Your task to perform on an android device: open chrome privacy settings Image 0: 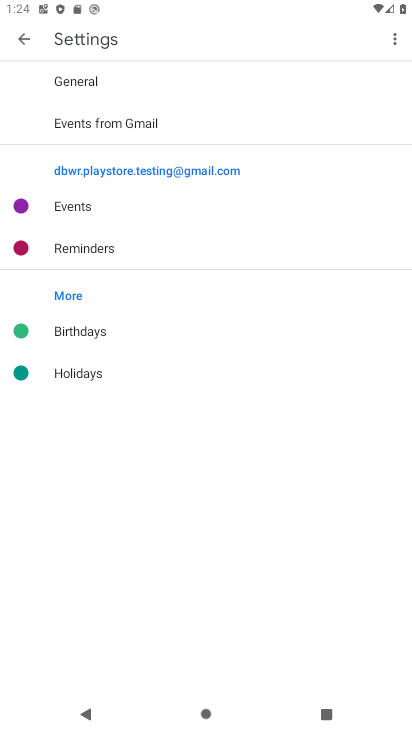
Step 0: press home button
Your task to perform on an android device: open chrome privacy settings Image 1: 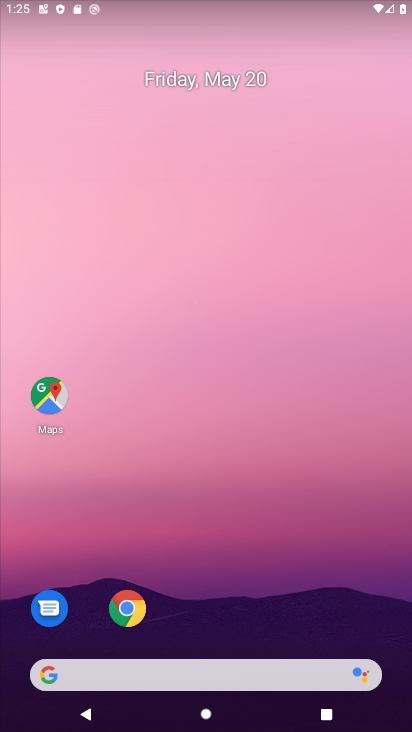
Step 1: click (136, 618)
Your task to perform on an android device: open chrome privacy settings Image 2: 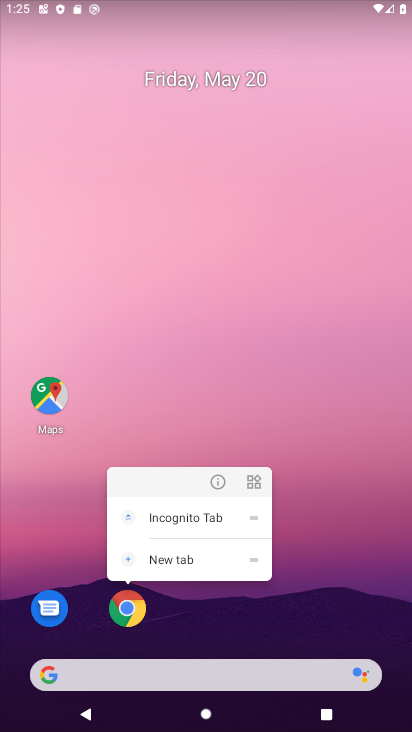
Step 2: click (132, 599)
Your task to perform on an android device: open chrome privacy settings Image 3: 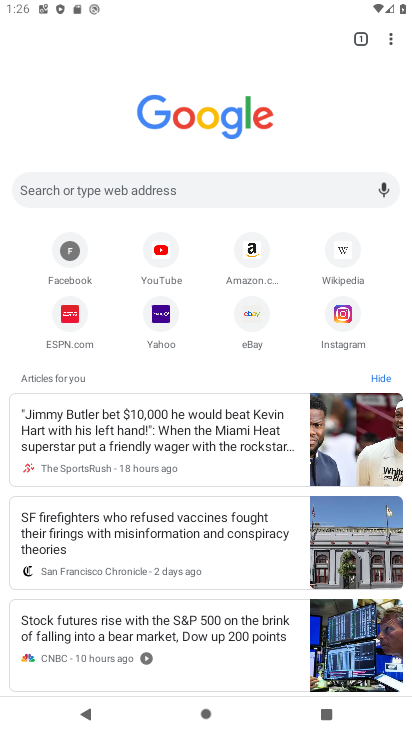
Step 3: drag from (391, 37) to (261, 328)
Your task to perform on an android device: open chrome privacy settings Image 4: 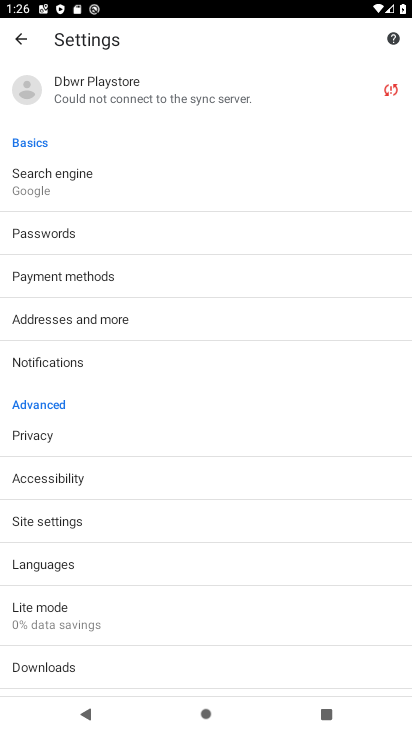
Step 4: drag from (83, 623) to (162, 288)
Your task to perform on an android device: open chrome privacy settings Image 5: 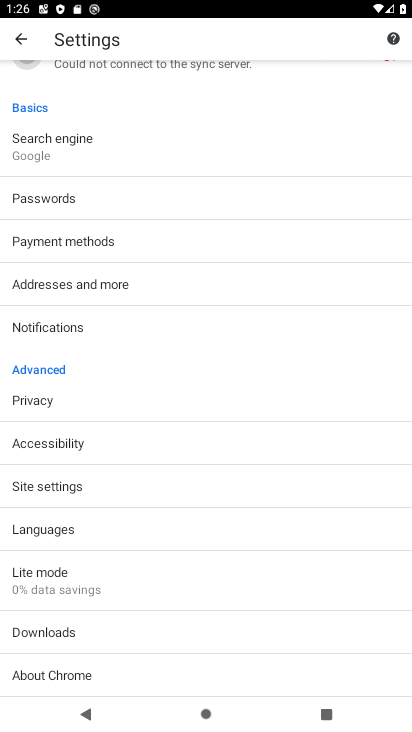
Step 5: click (46, 409)
Your task to perform on an android device: open chrome privacy settings Image 6: 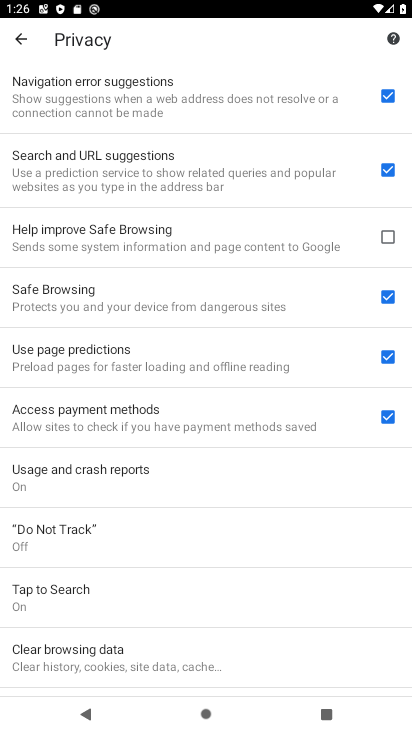
Step 6: task complete